Your task to perform on an android device: turn off airplane mode Image 0: 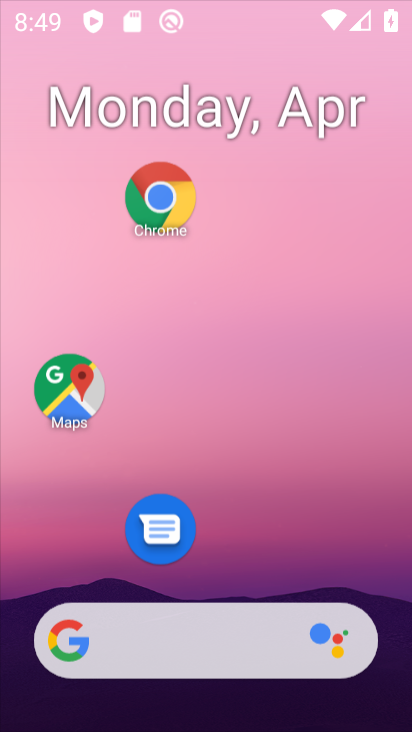
Step 0: click (327, 31)
Your task to perform on an android device: turn off airplane mode Image 1: 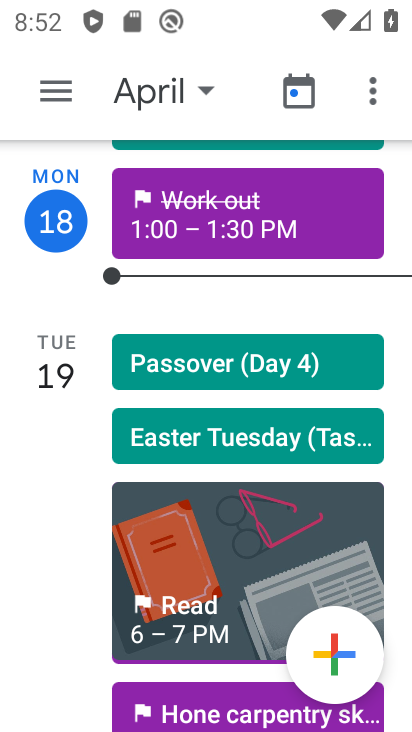
Step 1: task complete